Your task to perform on an android device: change the clock style Image 0: 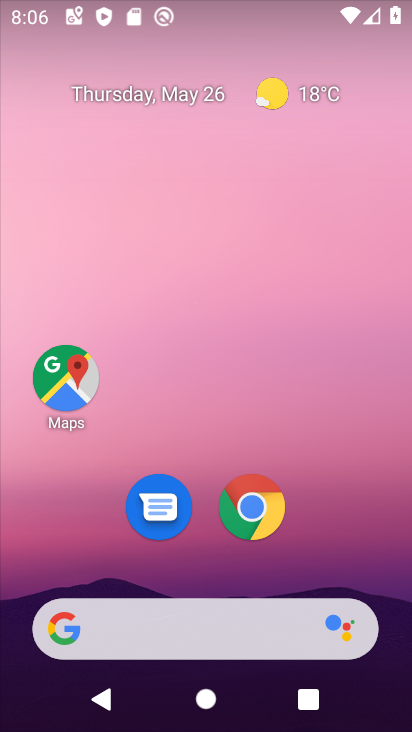
Step 0: press home button
Your task to perform on an android device: change the clock style Image 1: 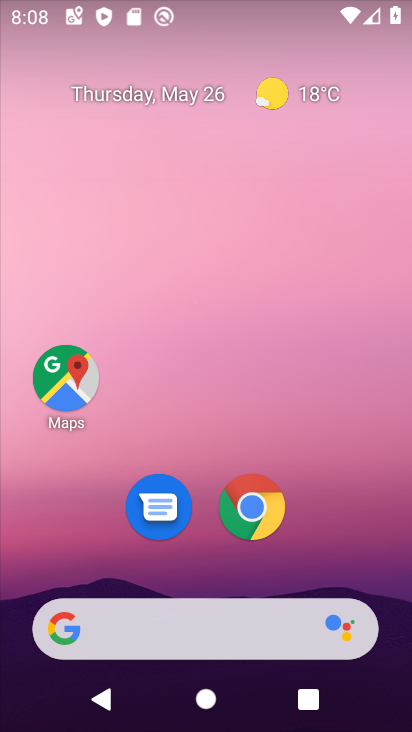
Step 1: drag from (268, 658) to (250, 79)
Your task to perform on an android device: change the clock style Image 2: 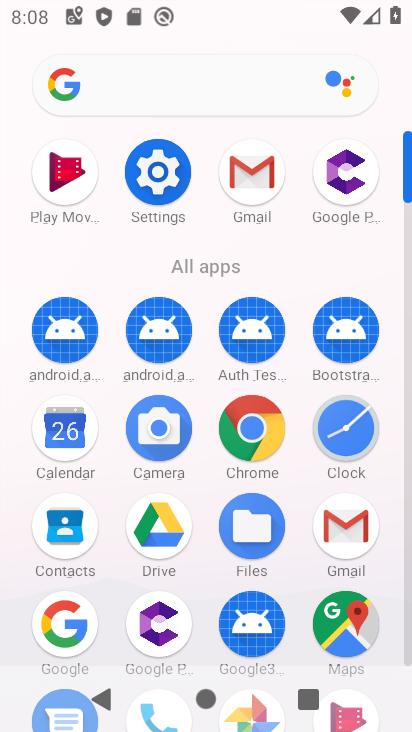
Step 2: click (361, 421)
Your task to perform on an android device: change the clock style Image 3: 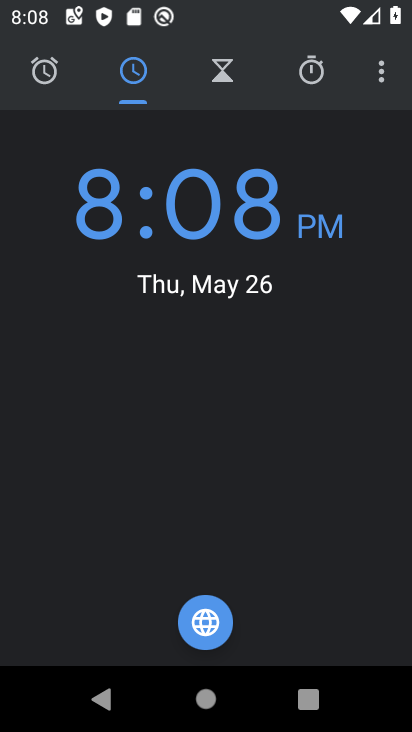
Step 3: click (373, 80)
Your task to perform on an android device: change the clock style Image 4: 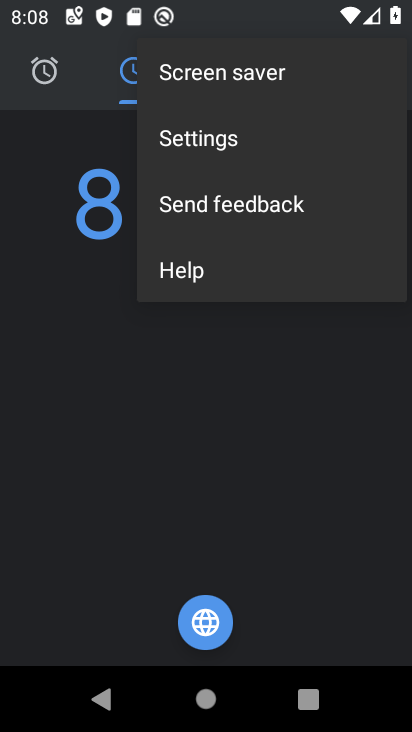
Step 4: click (226, 156)
Your task to perform on an android device: change the clock style Image 5: 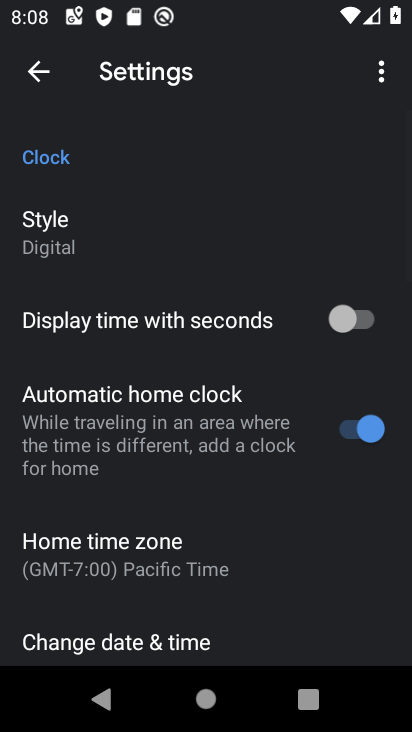
Step 5: click (148, 224)
Your task to perform on an android device: change the clock style Image 6: 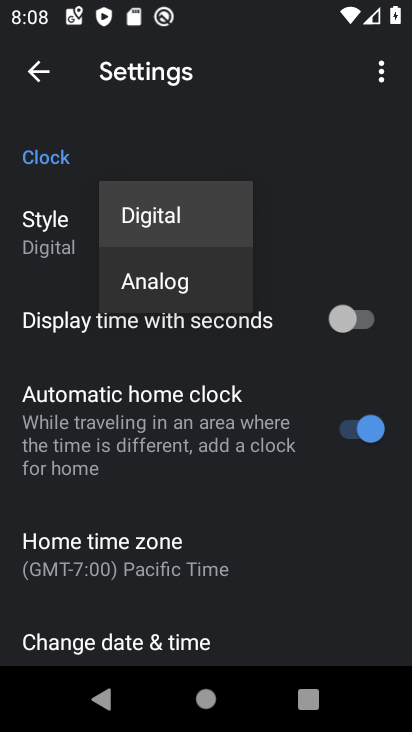
Step 6: click (181, 283)
Your task to perform on an android device: change the clock style Image 7: 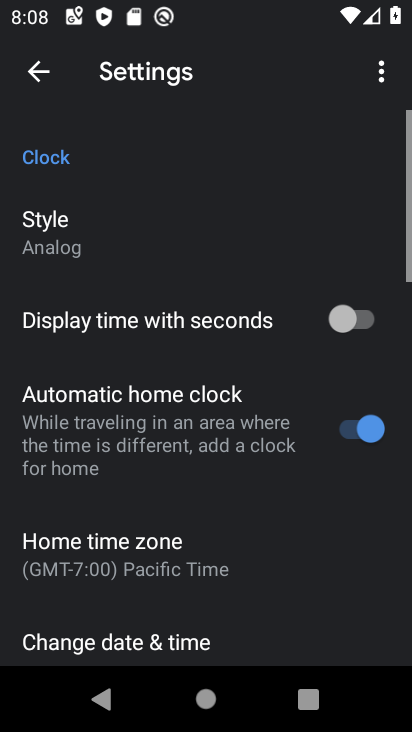
Step 7: task complete